Your task to perform on an android device: Open Reddit.com Image 0: 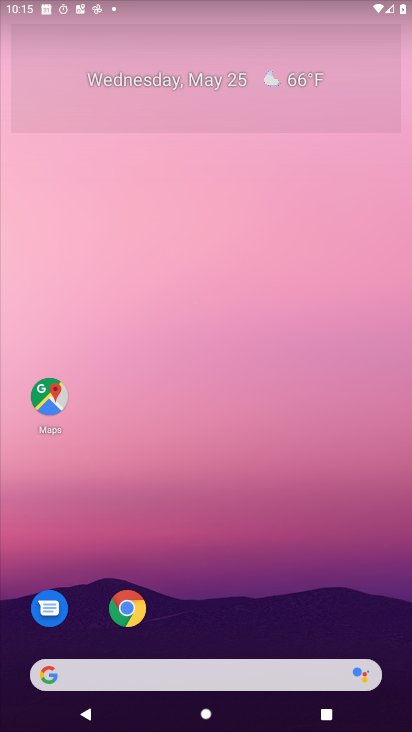
Step 0: click (126, 611)
Your task to perform on an android device: Open Reddit.com Image 1: 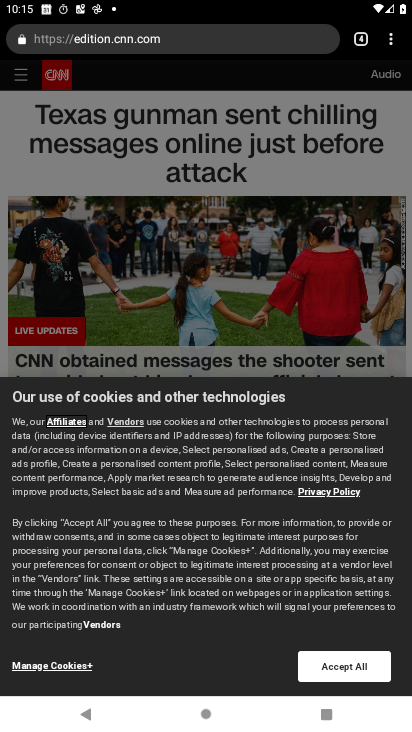
Step 1: click (392, 48)
Your task to perform on an android device: Open Reddit.com Image 2: 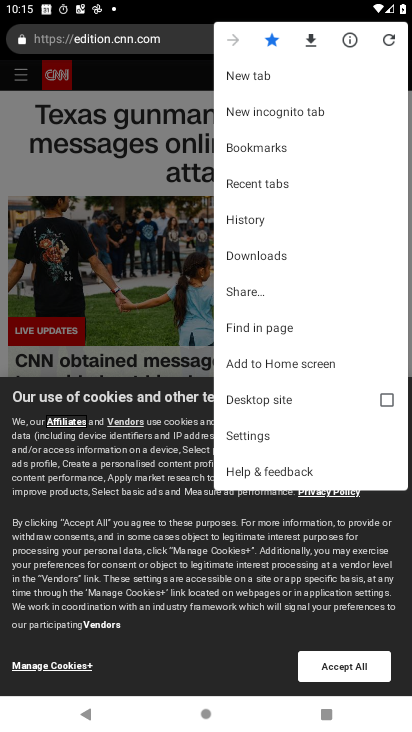
Step 2: click (257, 78)
Your task to perform on an android device: Open Reddit.com Image 3: 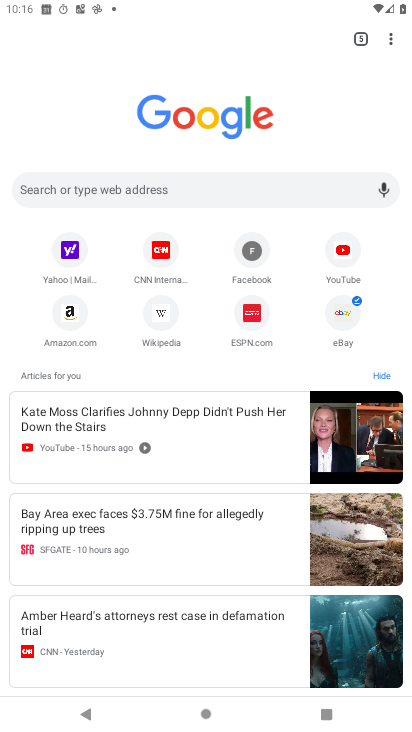
Step 3: click (200, 188)
Your task to perform on an android device: Open Reddit.com Image 4: 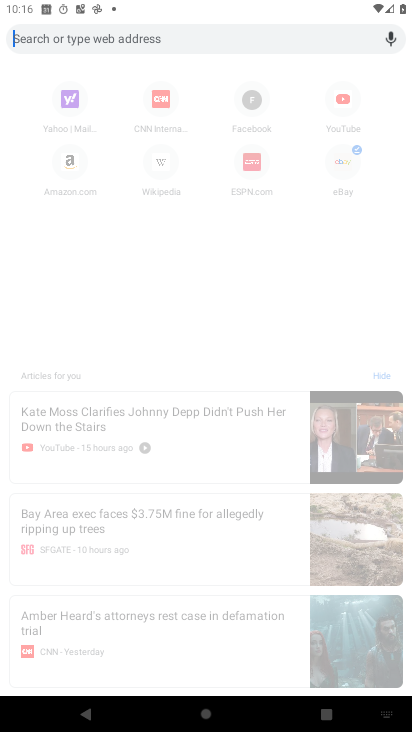
Step 4: type "Reddit.com"
Your task to perform on an android device: Open Reddit.com Image 5: 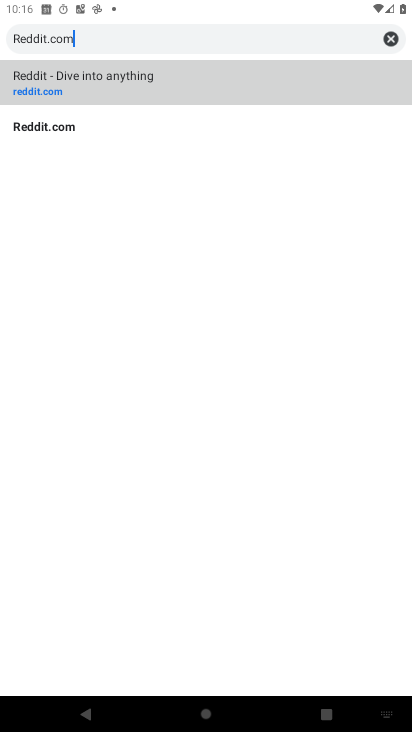
Step 5: type ""
Your task to perform on an android device: Open Reddit.com Image 6: 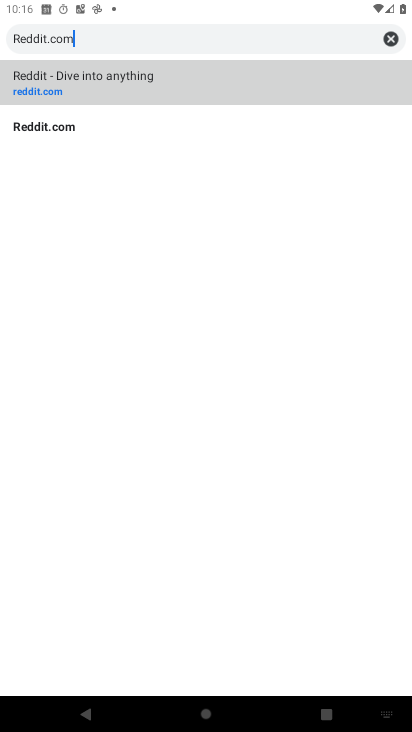
Step 6: click (34, 85)
Your task to perform on an android device: Open Reddit.com Image 7: 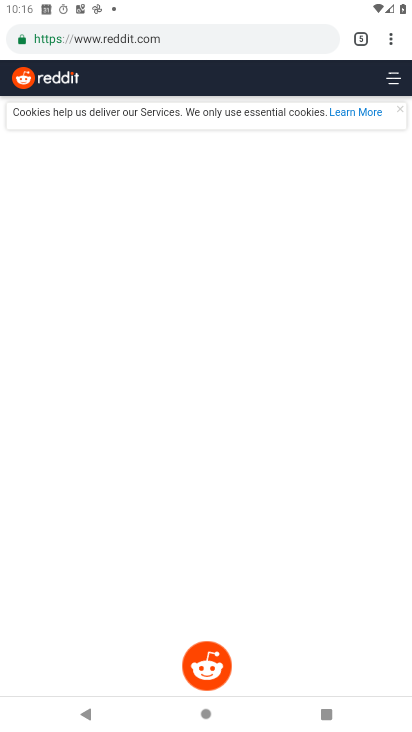
Step 7: task complete